Your task to perform on an android device: change notifications settings Image 0: 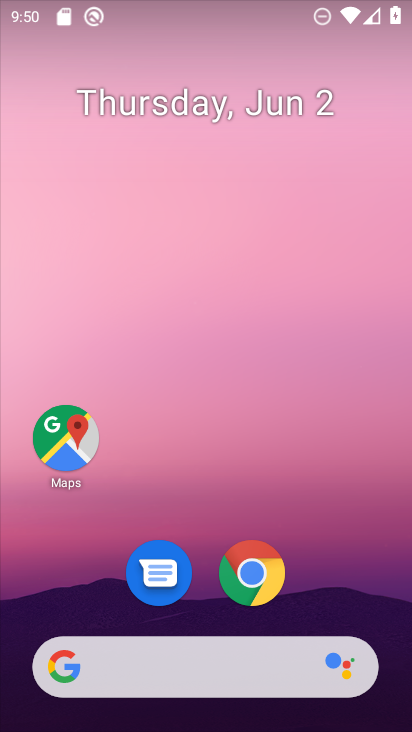
Step 0: drag from (351, 529) to (285, 13)
Your task to perform on an android device: change notifications settings Image 1: 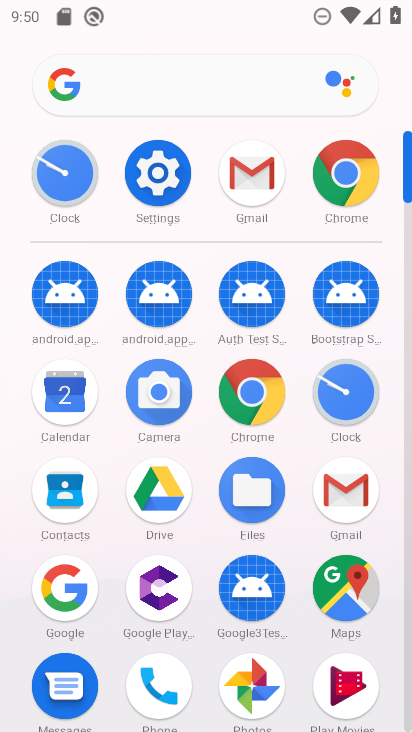
Step 1: click (153, 181)
Your task to perform on an android device: change notifications settings Image 2: 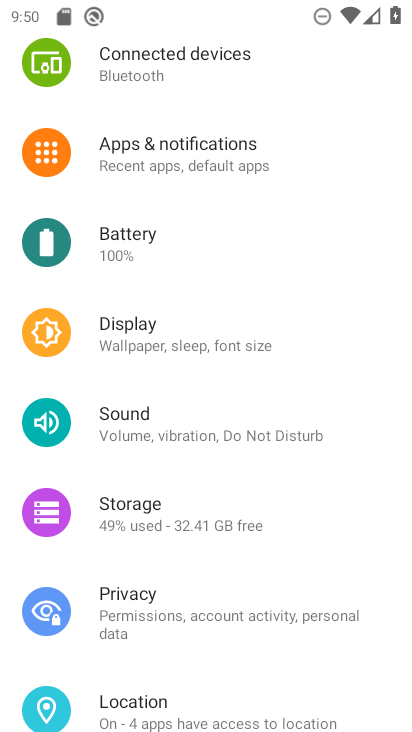
Step 2: click (169, 145)
Your task to perform on an android device: change notifications settings Image 3: 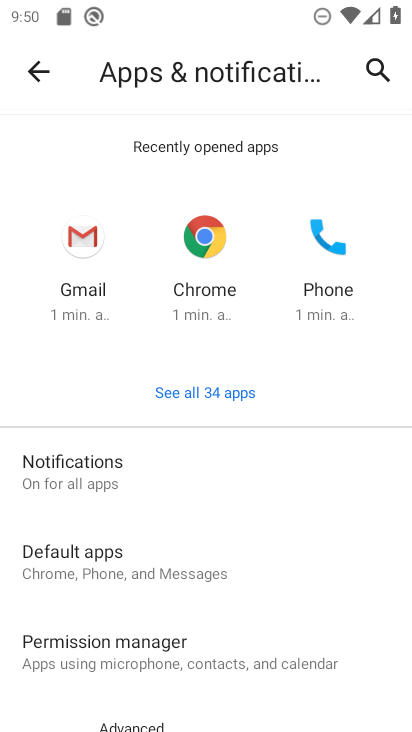
Step 3: click (81, 470)
Your task to perform on an android device: change notifications settings Image 4: 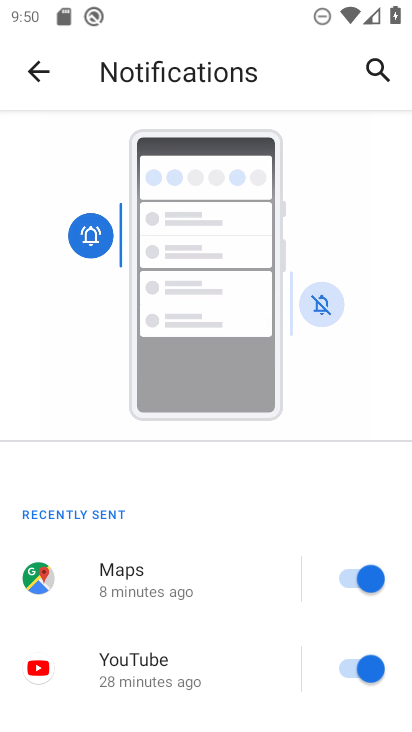
Step 4: task complete